Your task to perform on an android device: make emails show in primary in the gmail app Image 0: 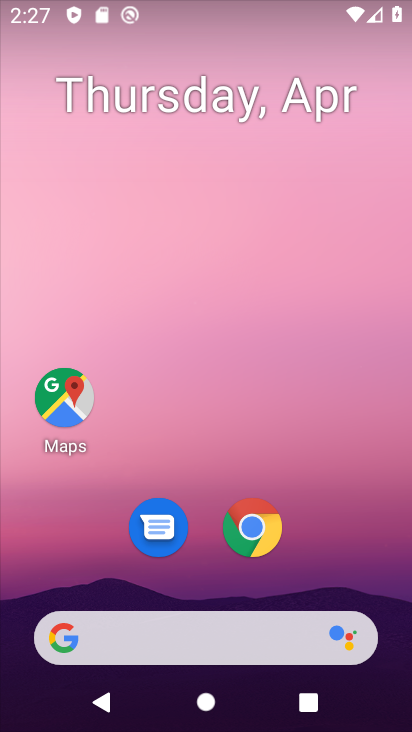
Step 0: drag from (210, 571) to (360, 141)
Your task to perform on an android device: make emails show in primary in the gmail app Image 1: 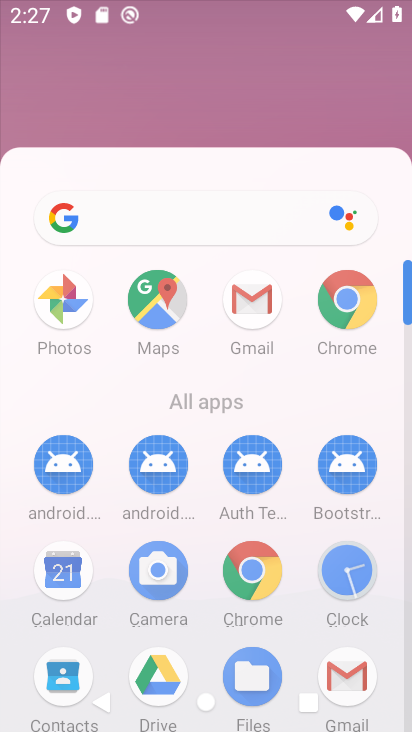
Step 1: click (342, 534)
Your task to perform on an android device: make emails show in primary in the gmail app Image 2: 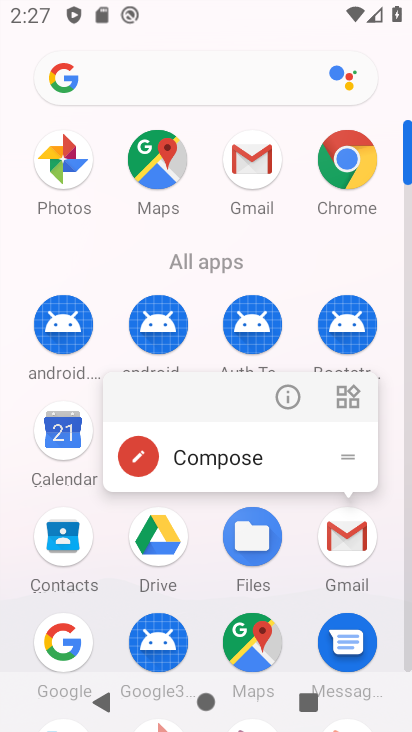
Step 2: click (334, 533)
Your task to perform on an android device: make emails show in primary in the gmail app Image 3: 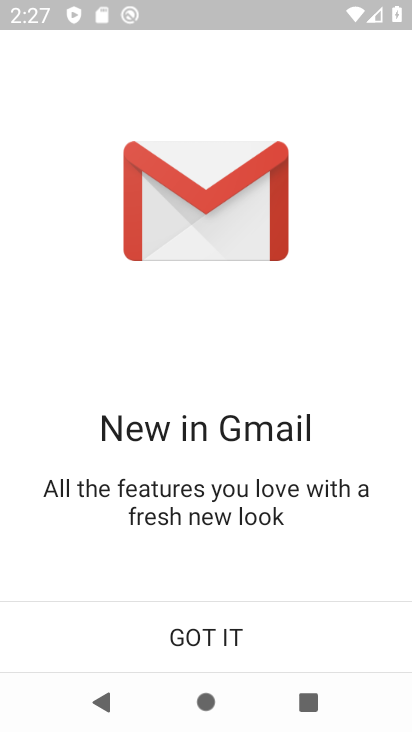
Step 3: click (221, 618)
Your task to perform on an android device: make emails show in primary in the gmail app Image 4: 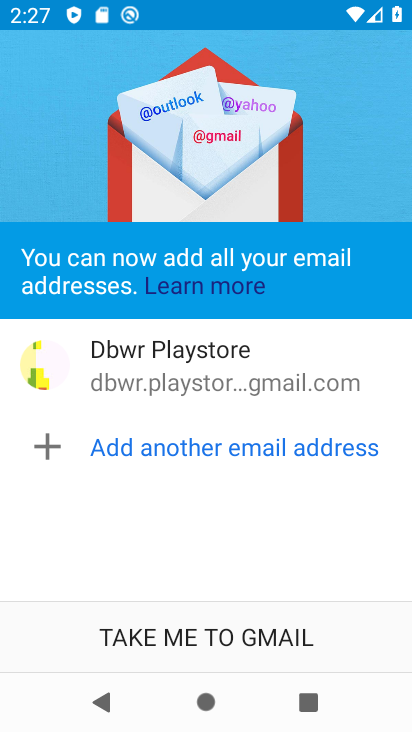
Step 4: click (219, 647)
Your task to perform on an android device: make emails show in primary in the gmail app Image 5: 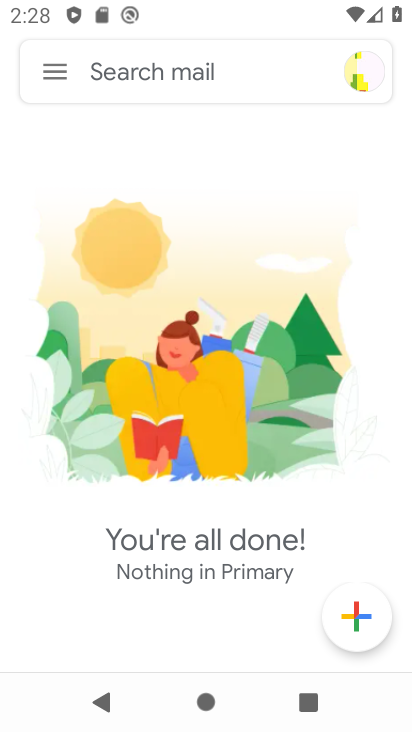
Step 5: click (41, 70)
Your task to perform on an android device: make emails show in primary in the gmail app Image 6: 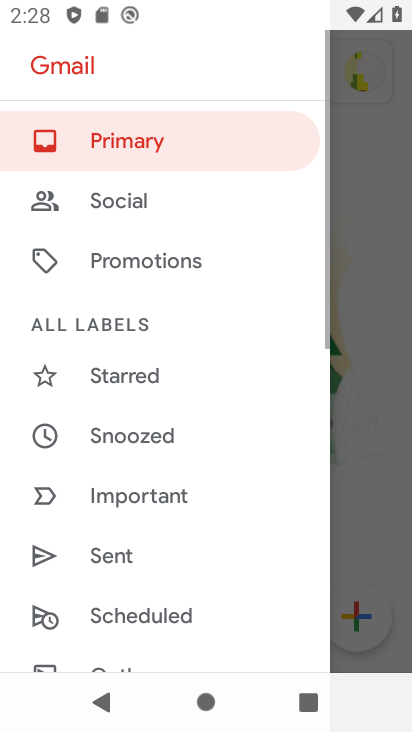
Step 6: drag from (100, 619) to (248, 90)
Your task to perform on an android device: make emails show in primary in the gmail app Image 7: 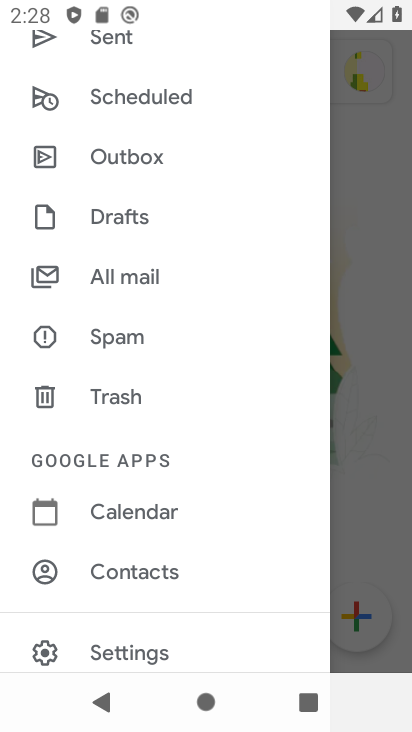
Step 7: drag from (141, 648) to (193, 482)
Your task to perform on an android device: make emails show in primary in the gmail app Image 8: 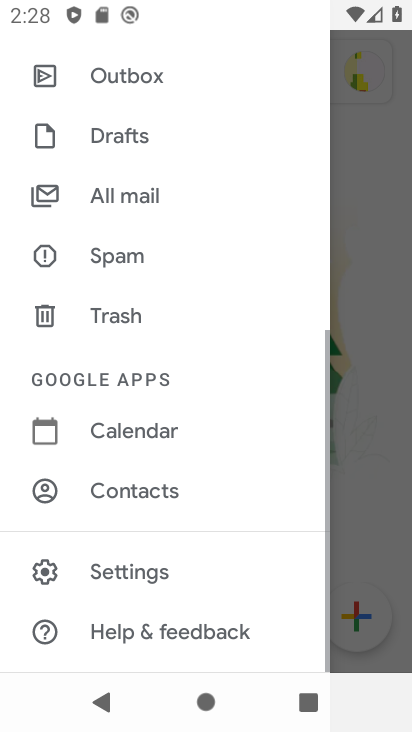
Step 8: click (114, 565)
Your task to perform on an android device: make emails show in primary in the gmail app Image 9: 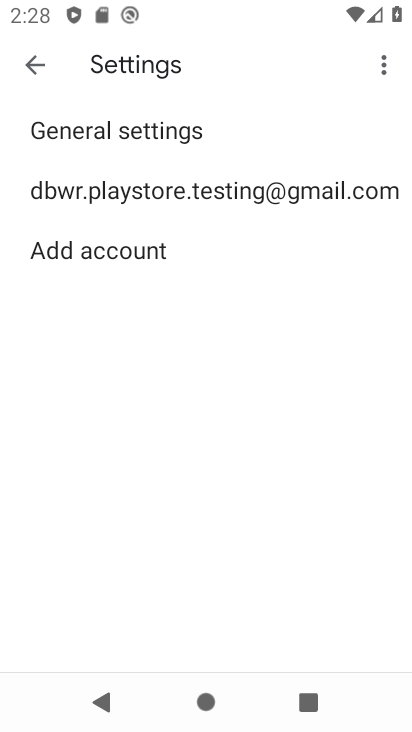
Step 9: click (179, 184)
Your task to perform on an android device: make emails show in primary in the gmail app Image 10: 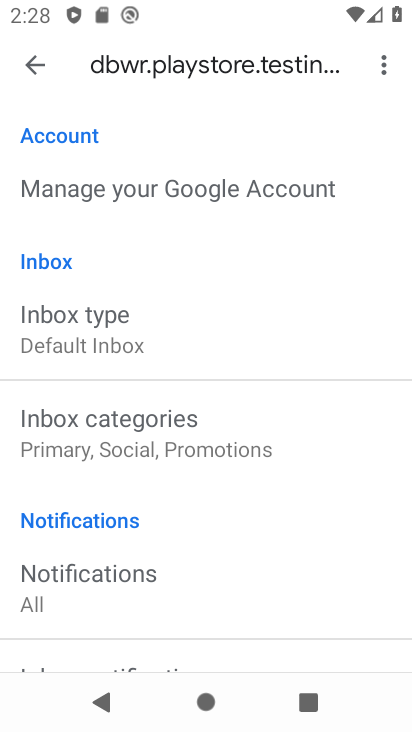
Step 10: click (113, 453)
Your task to perform on an android device: make emails show in primary in the gmail app Image 11: 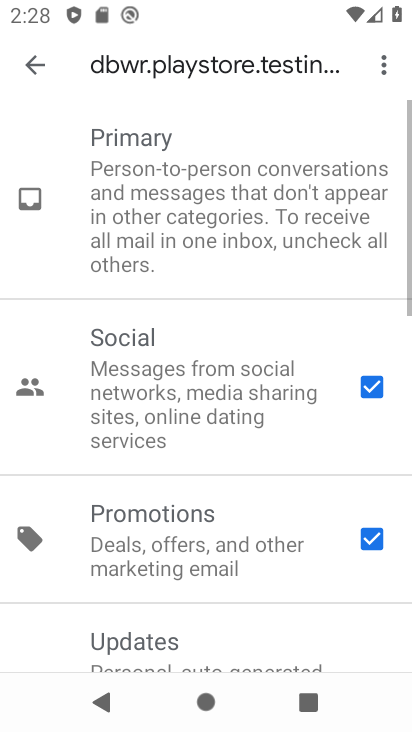
Step 11: click (277, 361)
Your task to perform on an android device: make emails show in primary in the gmail app Image 12: 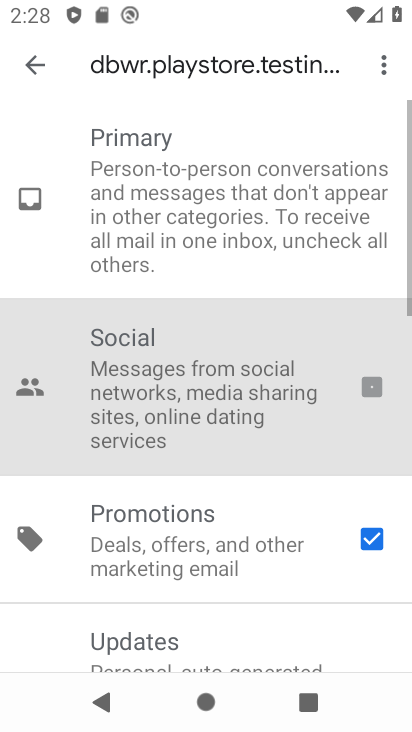
Step 12: click (362, 539)
Your task to perform on an android device: make emails show in primary in the gmail app Image 13: 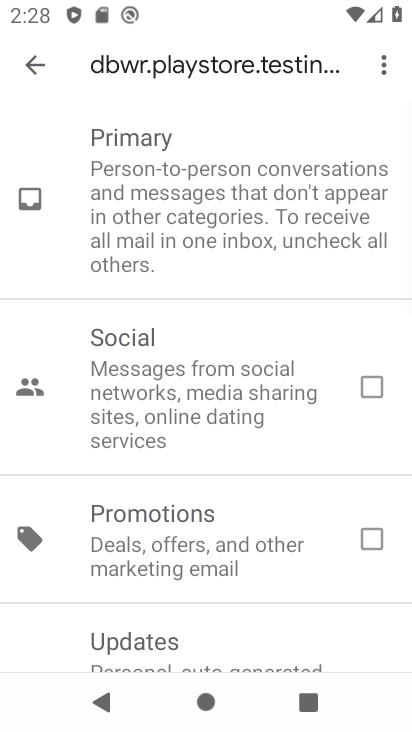
Step 13: task complete